Your task to perform on an android device: open app "HBO Max: Stream TV & Movies" Image 0: 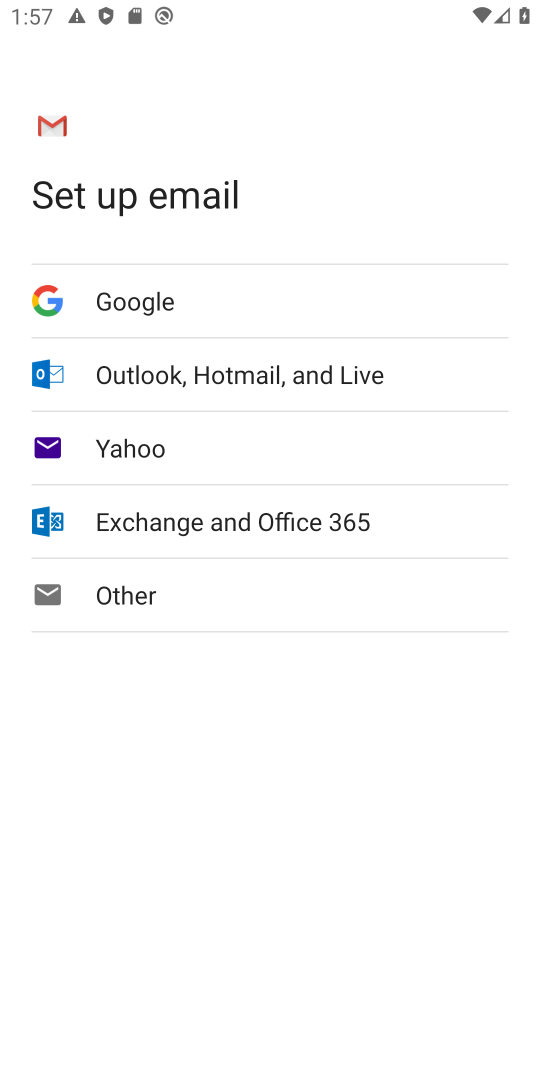
Step 0: press home button
Your task to perform on an android device: open app "HBO Max: Stream TV & Movies" Image 1: 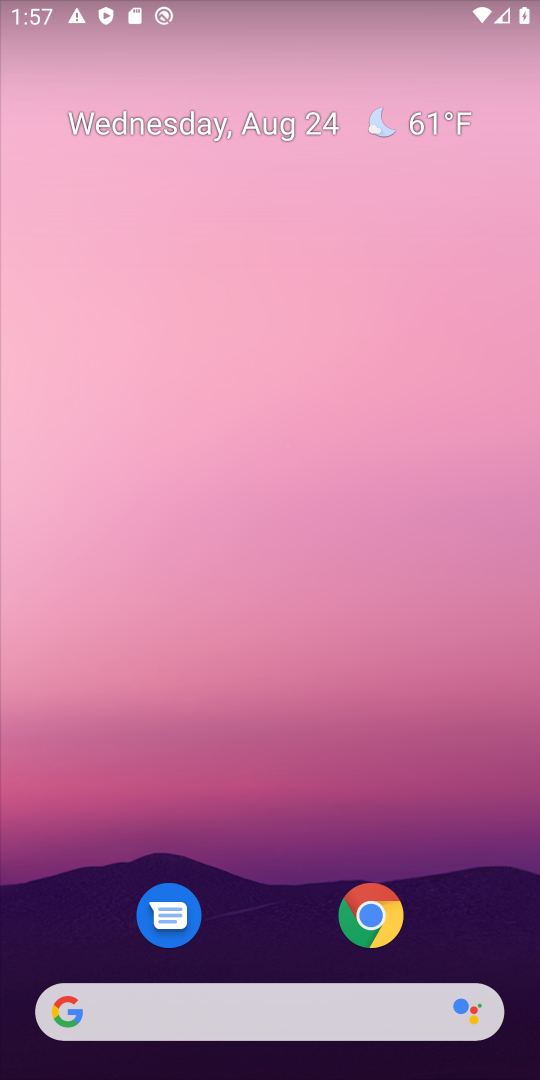
Step 1: drag from (269, 816) to (349, 217)
Your task to perform on an android device: open app "HBO Max: Stream TV & Movies" Image 2: 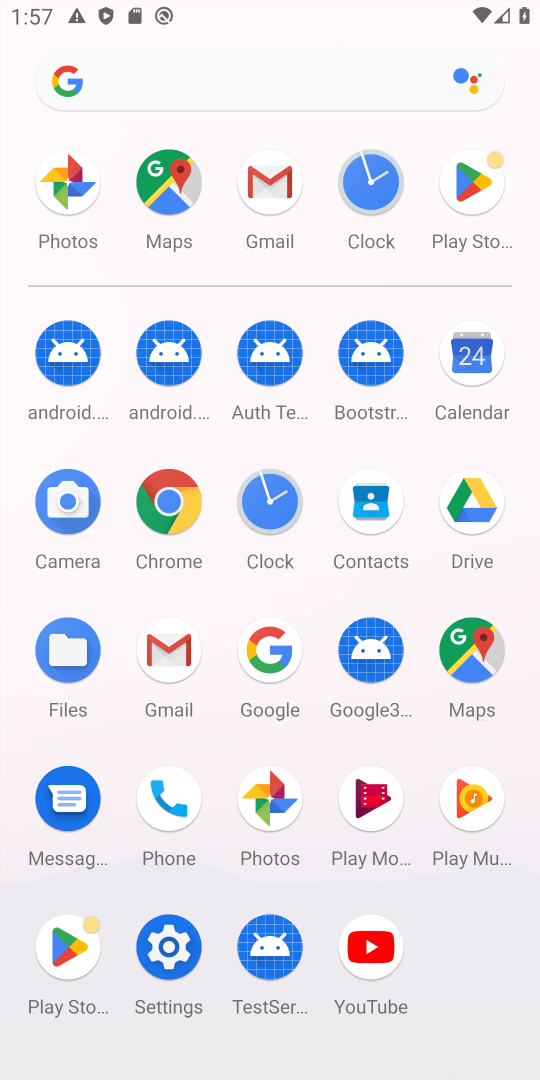
Step 2: click (461, 184)
Your task to perform on an android device: open app "HBO Max: Stream TV & Movies" Image 3: 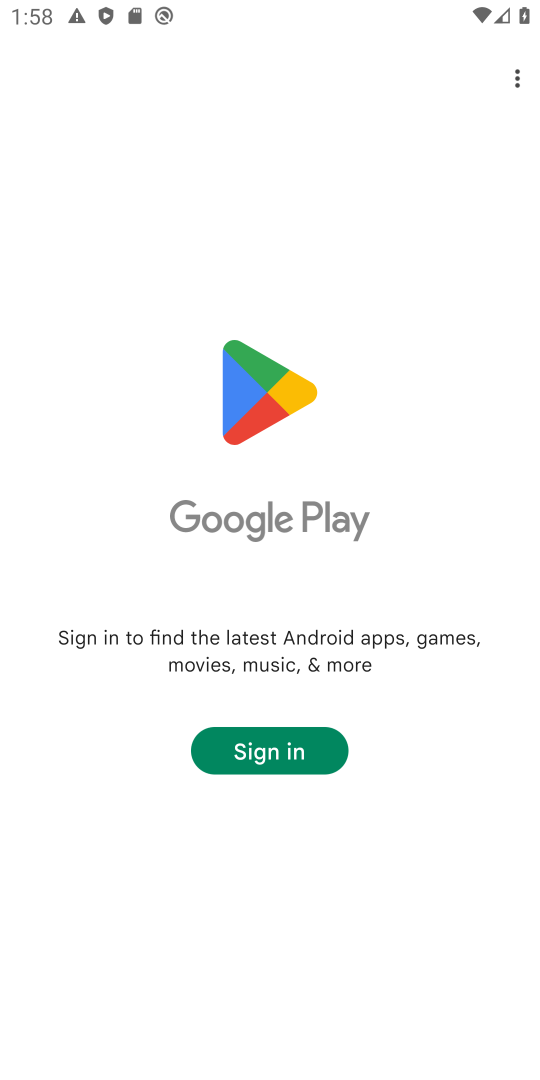
Step 3: task complete